Your task to perform on an android device: Go to Reddit.com Image 0: 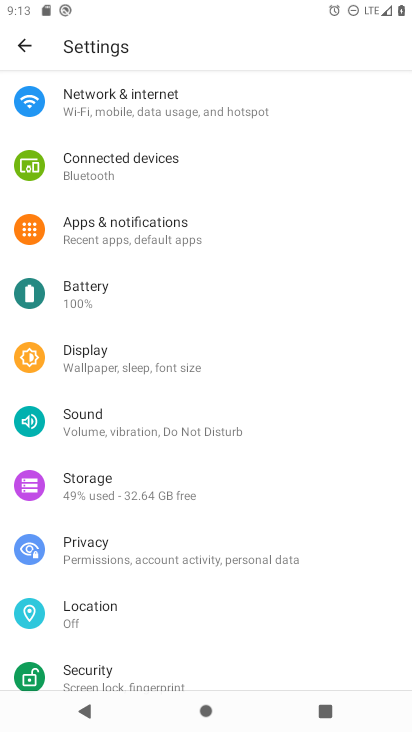
Step 0: press home button
Your task to perform on an android device: Go to Reddit.com Image 1: 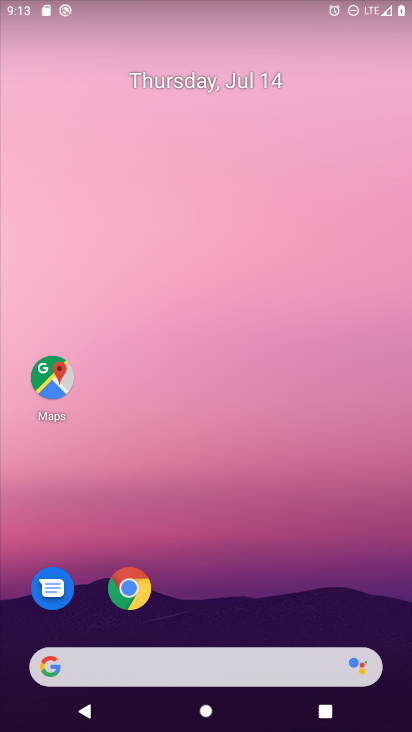
Step 1: drag from (273, 602) to (236, 41)
Your task to perform on an android device: Go to Reddit.com Image 2: 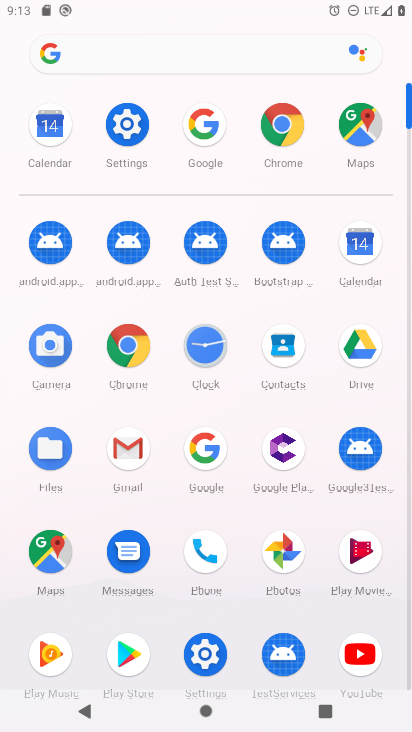
Step 2: click (290, 130)
Your task to perform on an android device: Go to Reddit.com Image 3: 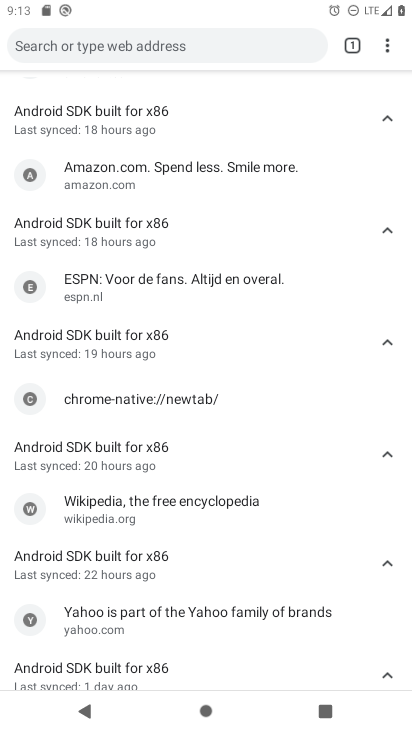
Step 3: click (172, 42)
Your task to perform on an android device: Go to Reddit.com Image 4: 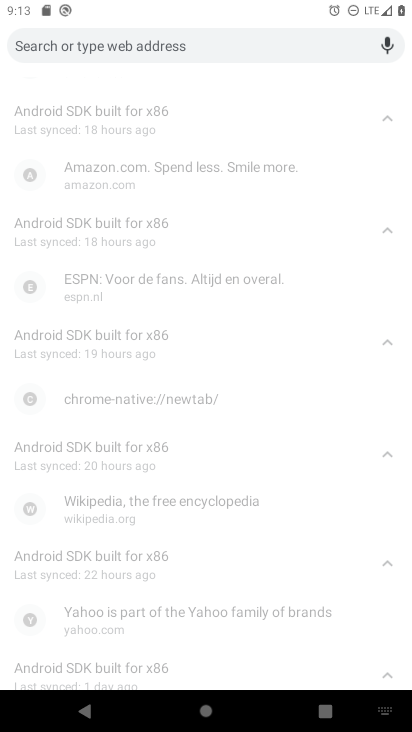
Step 4: press back button
Your task to perform on an android device: Go to Reddit.com Image 5: 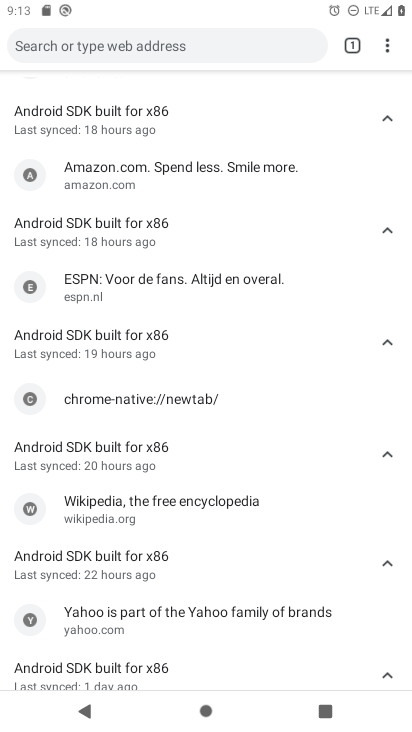
Step 5: press back button
Your task to perform on an android device: Go to Reddit.com Image 6: 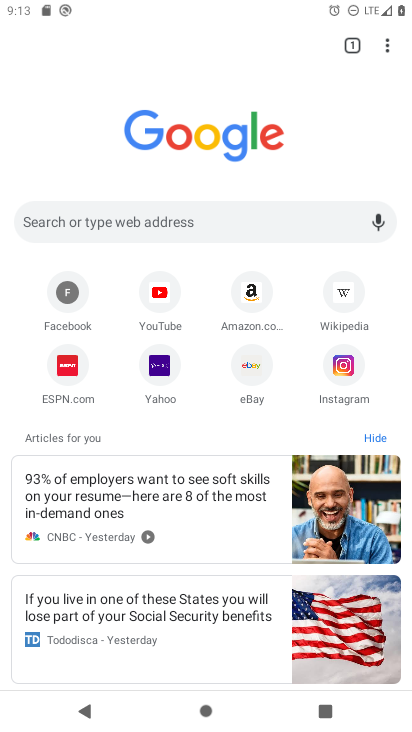
Step 6: click (233, 223)
Your task to perform on an android device: Go to Reddit.com Image 7: 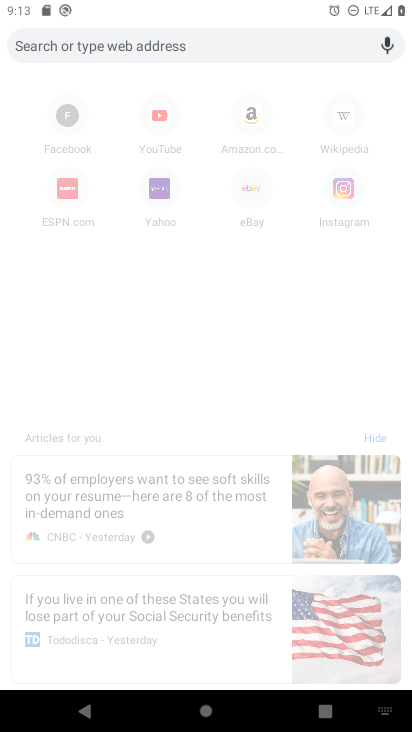
Step 7: type "Reddit.com"
Your task to perform on an android device: Go to Reddit.com Image 8: 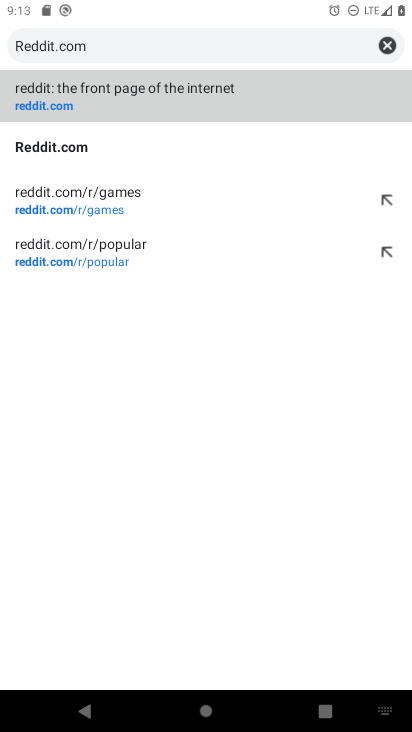
Step 8: click (50, 151)
Your task to perform on an android device: Go to Reddit.com Image 9: 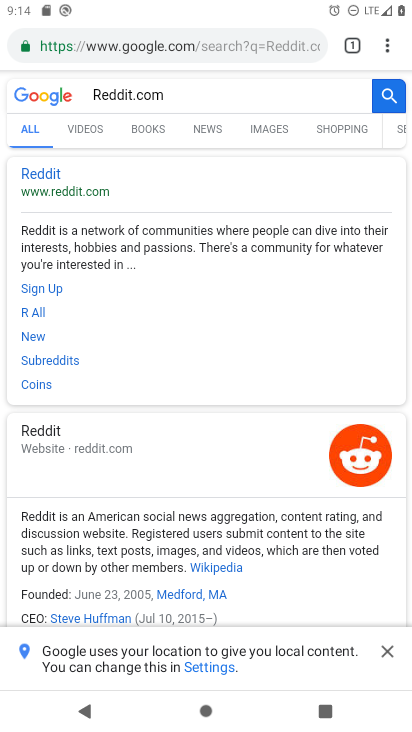
Step 9: task complete